Your task to perform on an android device: toggle priority inbox in the gmail app Image 0: 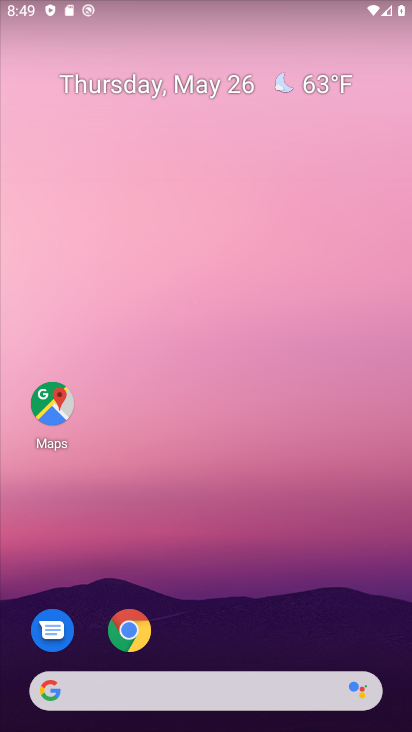
Step 0: drag from (300, 682) to (245, 114)
Your task to perform on an android device: toggle priority inbox in the gmail app Image 1: 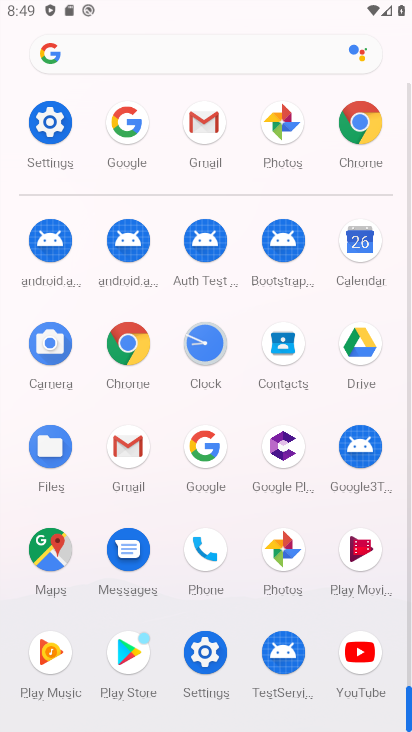
Step 1: click (199, 131)
Your task to perform on an android device: toggle priority inbox in the gmail app Image 2: 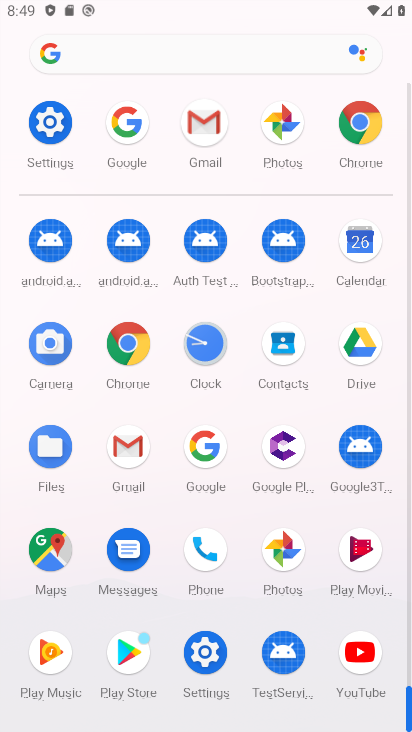
Step 2: click (207, 124)
Your task to perform on an android device: toggle priority inbox in the gmail app Image 3: 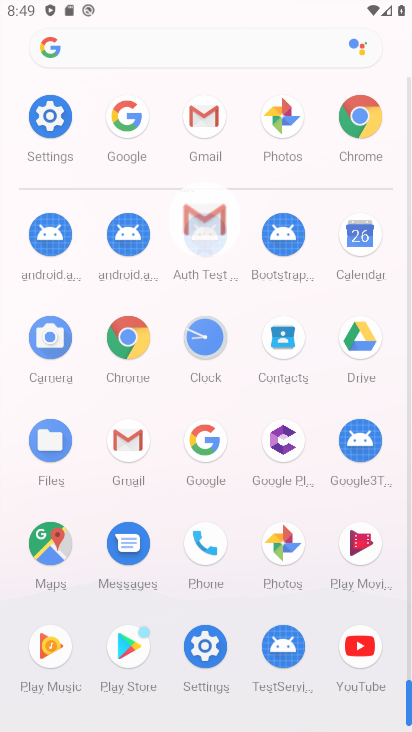
Step 3: click (208, 124)
Your task to perform on an android device: toggle priority inbox in the gmail app Image 4: 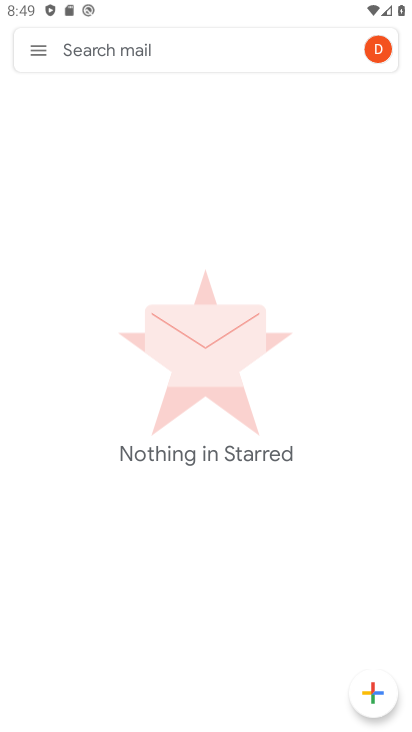
Step 4: click (38, 52)
Your task to perform on an android device: toggle priority inbox in the gmail app Image 5: 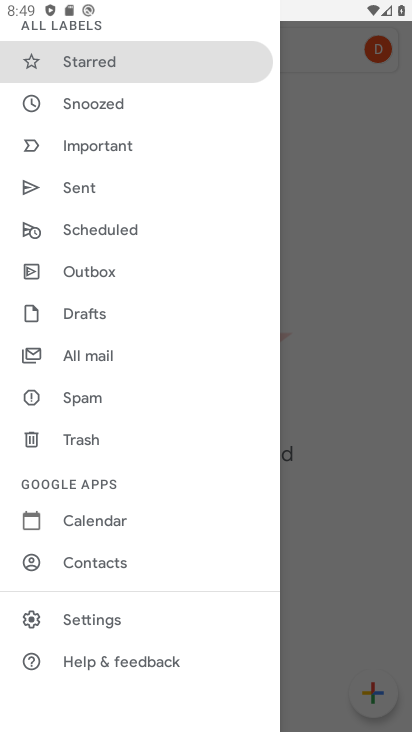
Step 5: click (94, 616)
Your task to perform on an android device: toggle priority inbox in the gmail app Image 6: 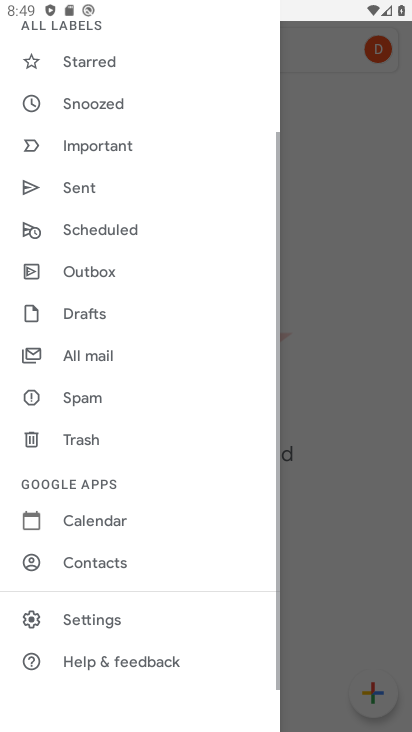
Step 6: click (94, 616)
Your task to perform on an android device: toggle priority inbox in the gmail app Image 7: 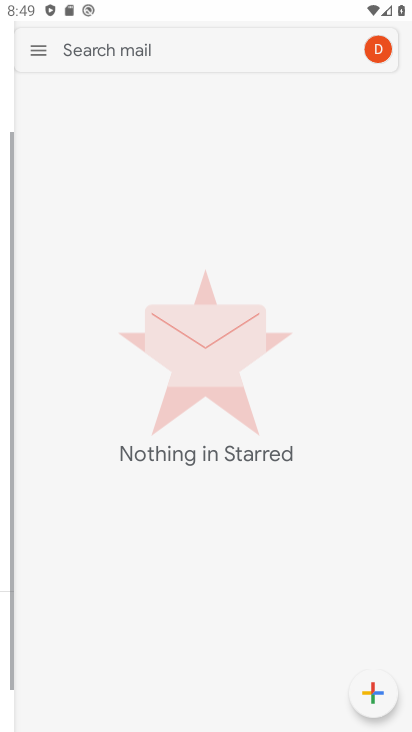
Step 7: click (94, 616)
Your task to perform on an android device: toggle priority inbox in the gmail app Image 8: 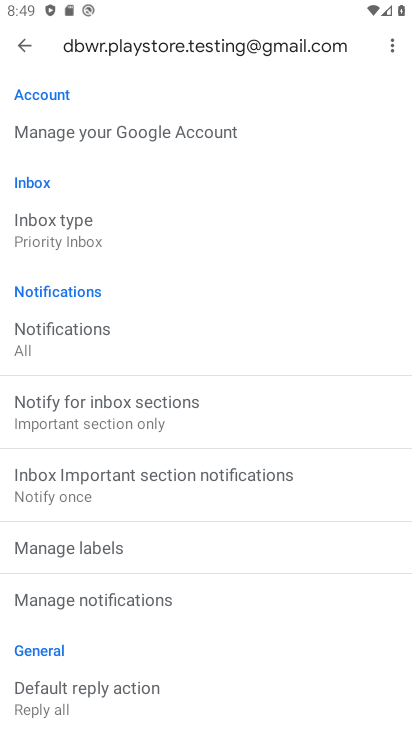
Step 8: click (57, 237)
Your task to perform on an android device: toggle priority inbox in the gmail app Image 9: 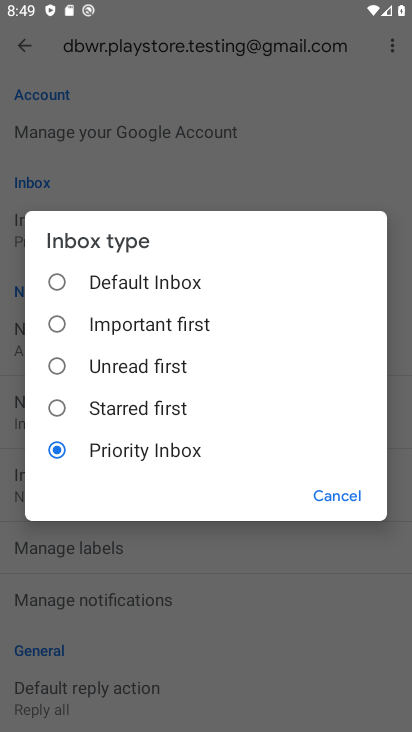
Step 9: click (57, 404)
Your task to perform on an android device: toggle priority inbox in the gmail app Image 10: 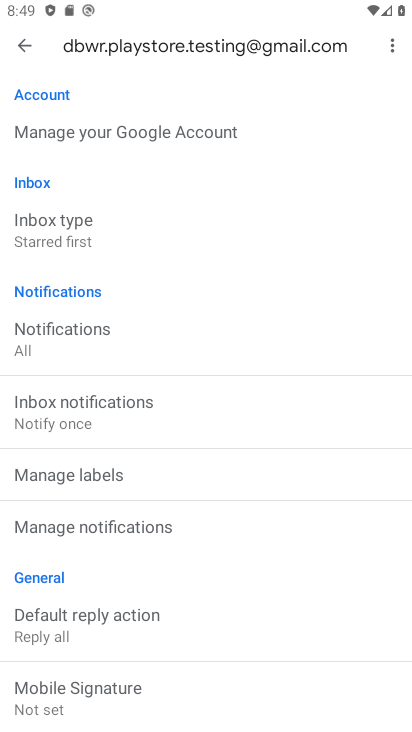
Step 10: task complete